Your task to perform on an android device: open chrome and create a bookmark for the current page Image 0: 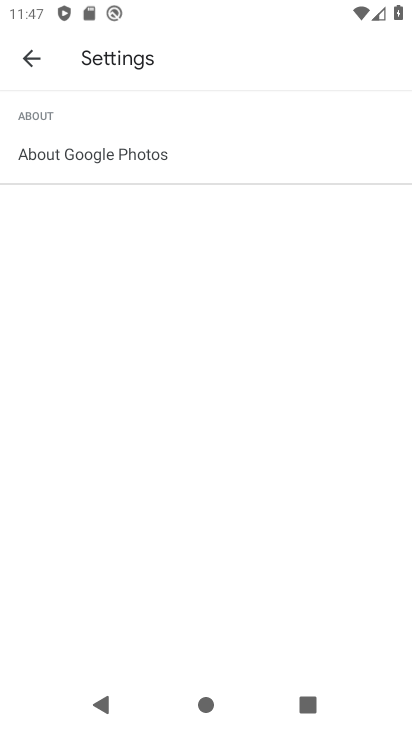
Step 0: press home button
Your task to perform on an android device: open chrome and create a bookmark for the current page Image 1: 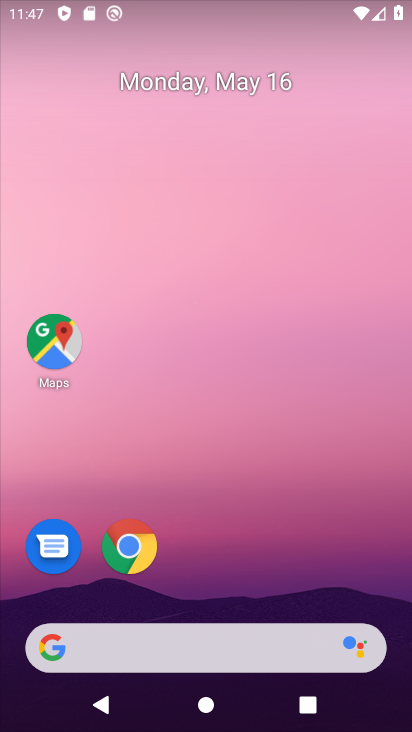
Step 1: click (131, 545)
Your task to perform on an android device: open chrome and create a bookmark for the current page Image 2: 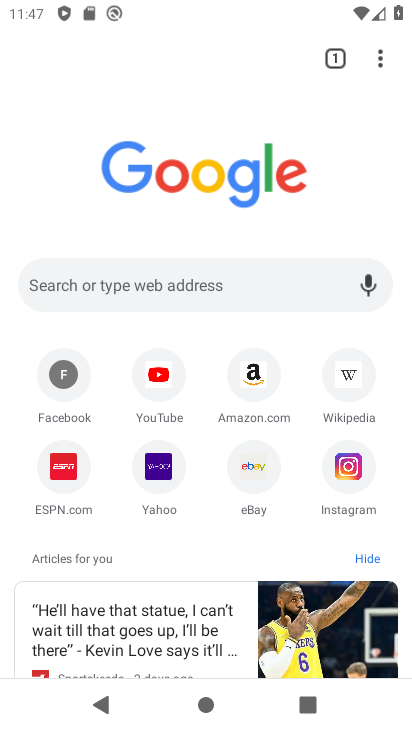
Step 2: click (377, 63)
Your task to perform on an android device: open chrome and create a bookmark for the current page Image 3: 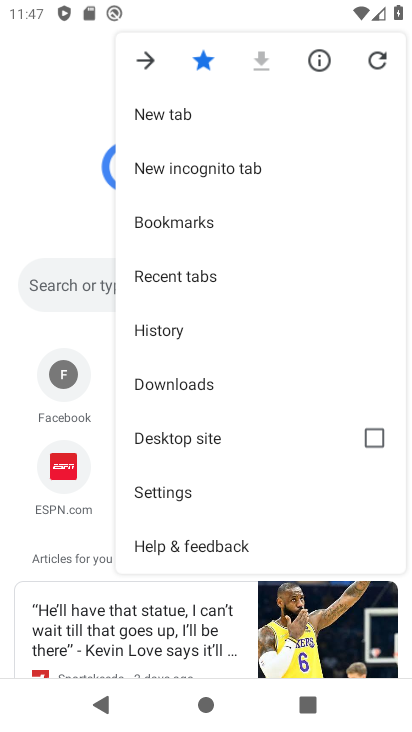
Step 3: task complete